Your task to perform on an android device: toggle pop-ups in chrome Image 0: 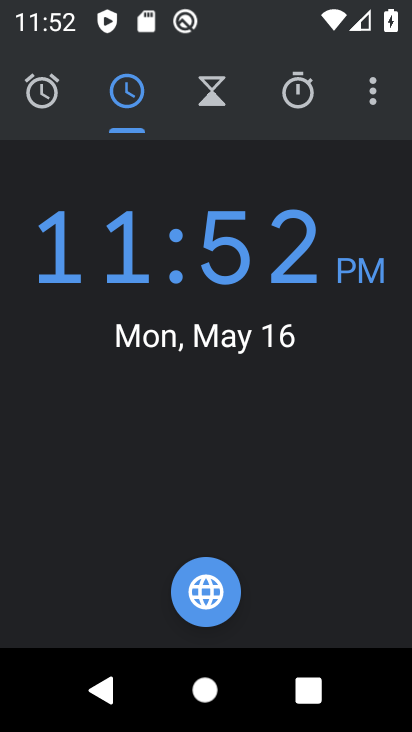
Step 0: press home button
Your task to perform on an android device: toggle pop-ups in chrome Image 1: 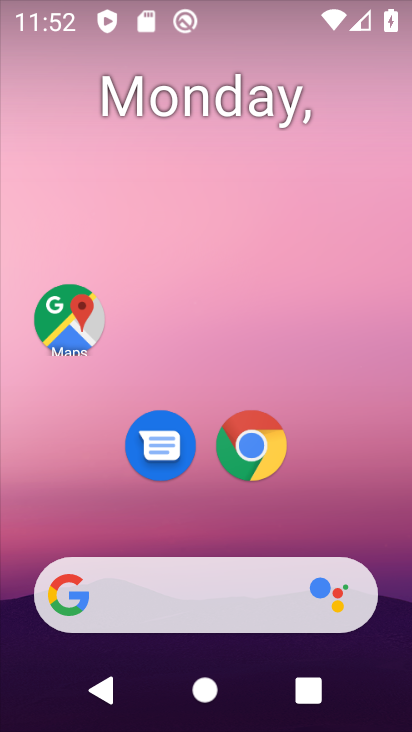
Step 1: click (274, 457)
Your task to perform on an android device: toggle pop-ups in chrome Image 2: 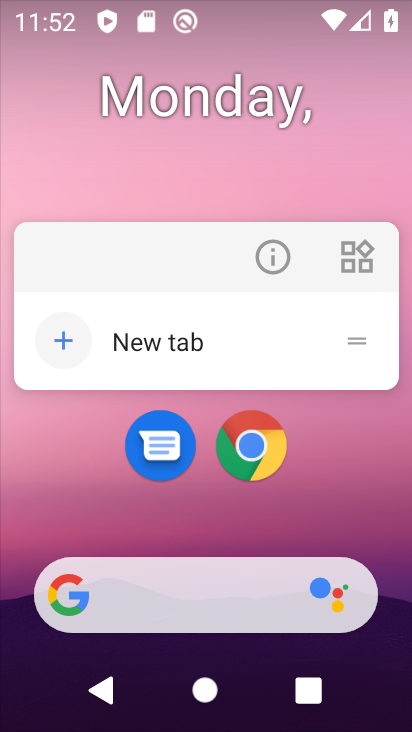
Step 2: click (267, 457)
Your task to perform on an android device: toggle pop-ups in chrome Image 3: 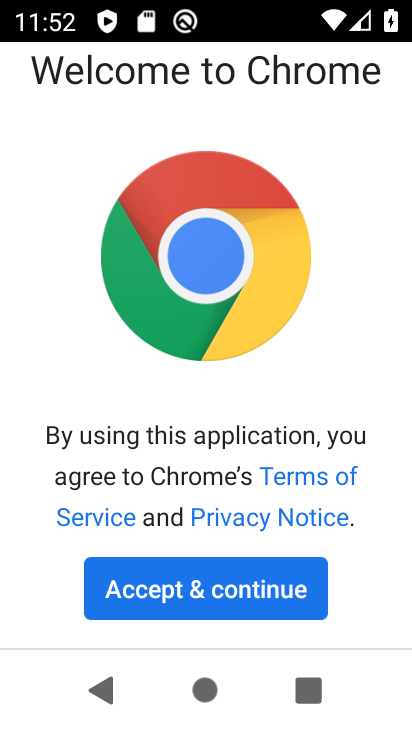
Step 3: click (238, 595)
Your task to perform on an android device: toggle pop-ups in chrome Image 4: 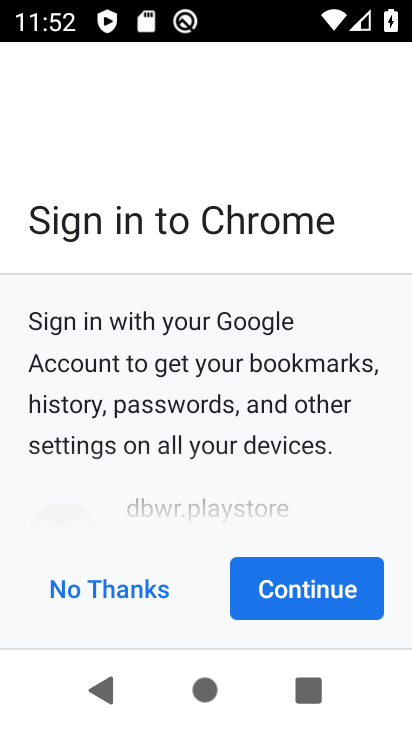
Step 4: click (349, 574)
Your task to perform on an android device: toggle pop-ups in chrome Image 5: 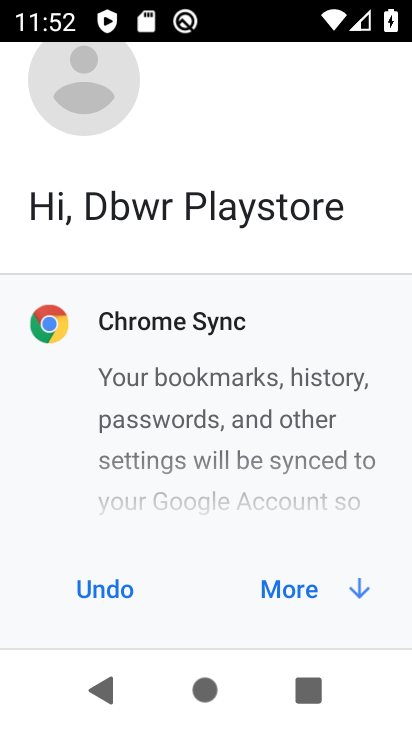
Step 5: click (317, 607)
Your task to perform on an android device: toggle pop-ups in chrome Image 6: 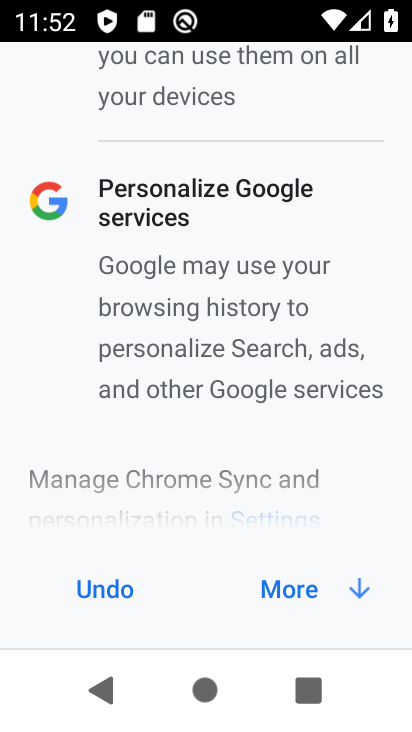
Step 6: click (315, 602)
Your task to perform on an android device: toggle pop-ups in chrome Image 7: 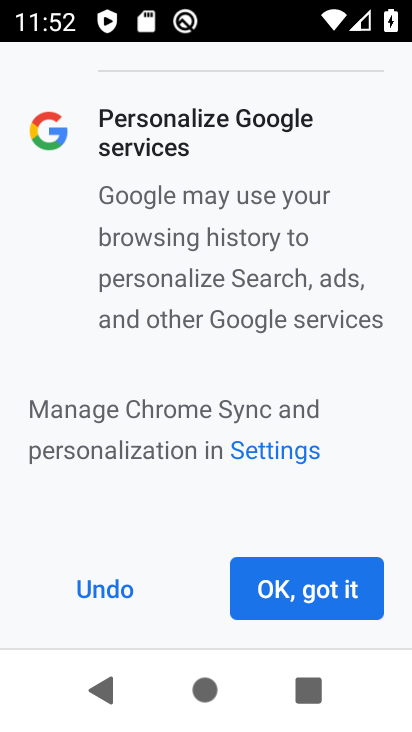
Step 7: click (315, 602)
Your task to perform on an android device: toggle pop-ups in chrome Image 8: 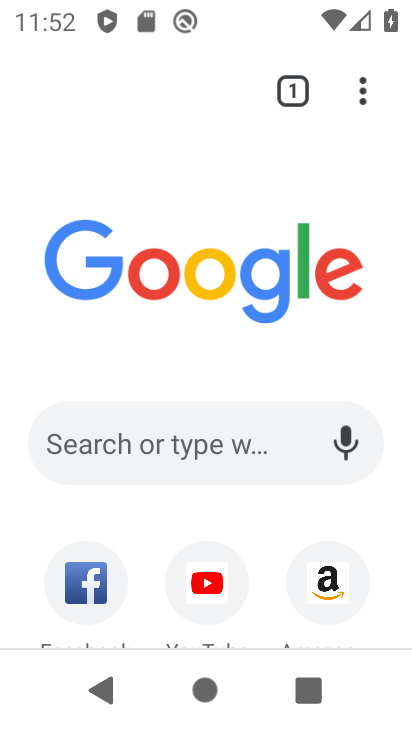
Step 8: drag from (388, 104) to (302, 504)
Your task to perform on an android device: toggle pop-ups in chrome Image 9: 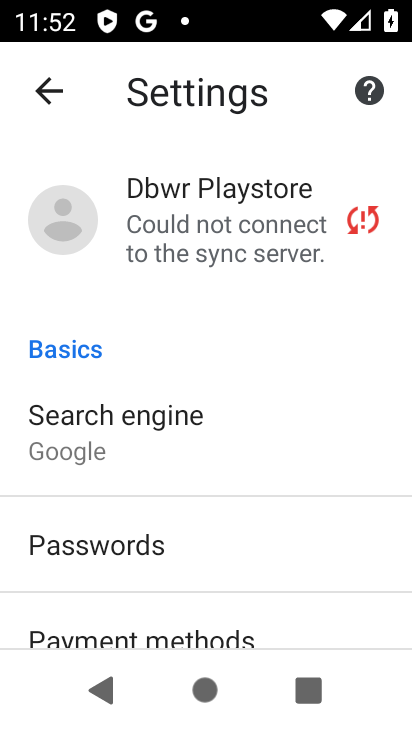
Step 9: drag from (178, 615) to (340, 207)
Your task to perform on an android device: toggle pop-ups in chrome Image 10: 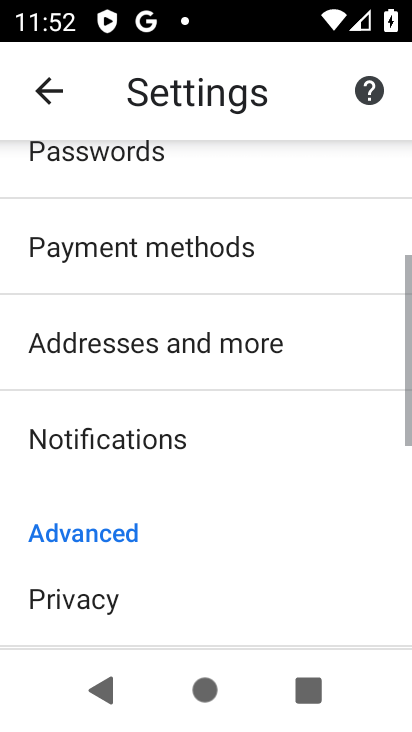
Step 10: drag from (237, 586) to (345, 254)
Your task to perform on an android device: toggle pop-ups in chrome Image 11: 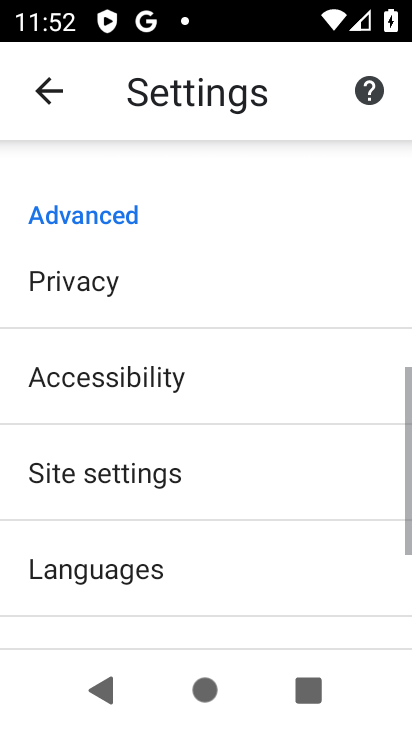
Step 11: click (180, 480)
Your task to perform on an android device: toggle pop-ups in chrome Image 12: 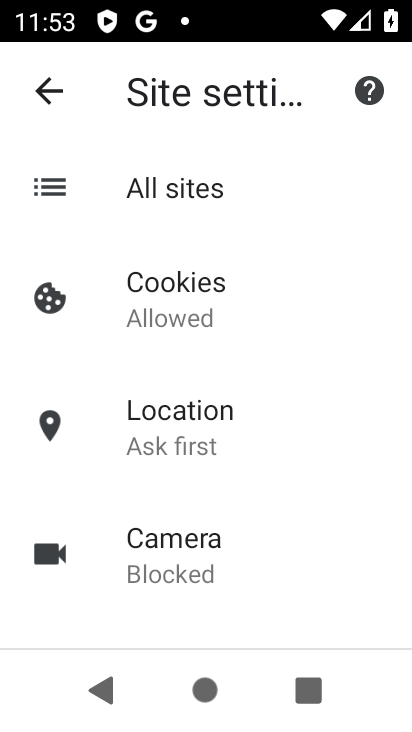
Step 12: drag from (172, 614) to (321, 266)
Your task to perform on an android device: toggle pop-ups in chrome Image 13: 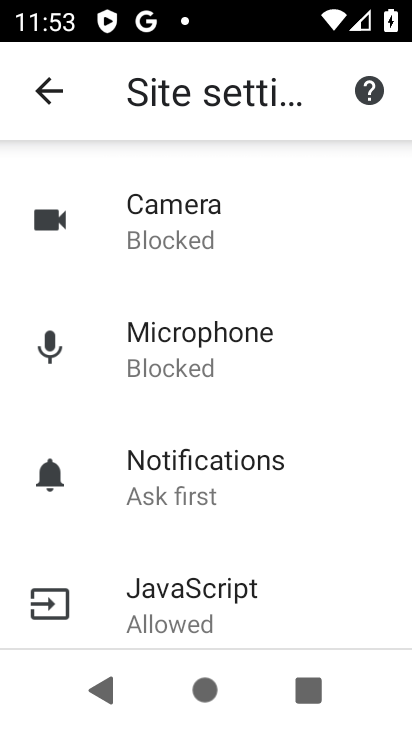
Step 13: drag from (228, 604) to (310, 222)
Your task to perform on an android device: toggle pop-ups in chrome Image 14: 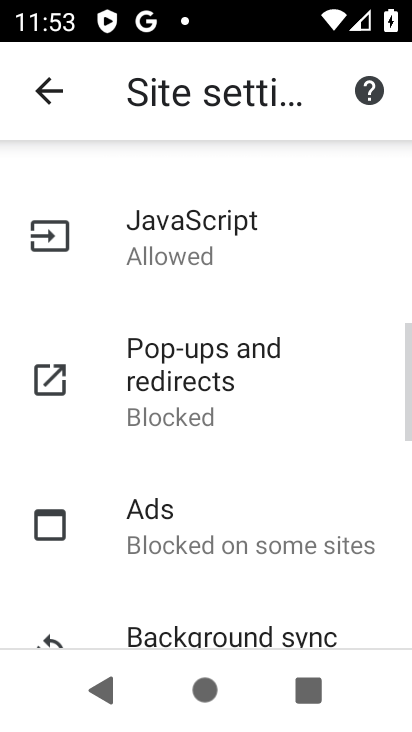
Step 14: click (254, 401)
Your task to perform on an android device: toggle pop-ups in chrome Image 15: 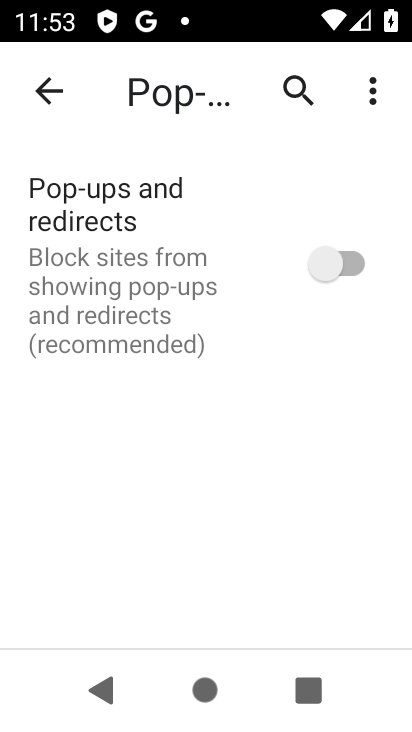
Step 15: click (365, 252)
Your task to perform on an android device: toggle pop-ups in chrome Image 16: 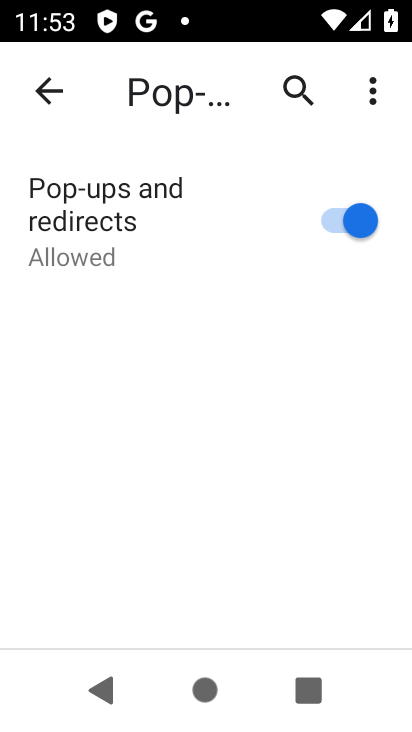
Step 16: task complete